Your task to perform on an android device: change text size in settings app Image 0: 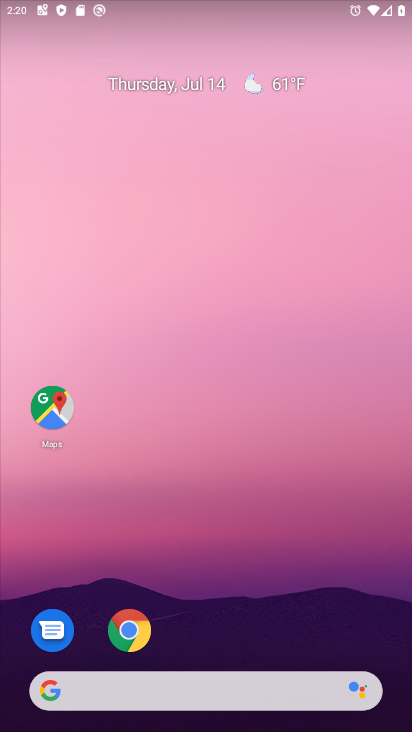
Step 0: drag from (240, 659) to (358, 243)
Your task to perform on an android device: change text size in settings app Image 1: 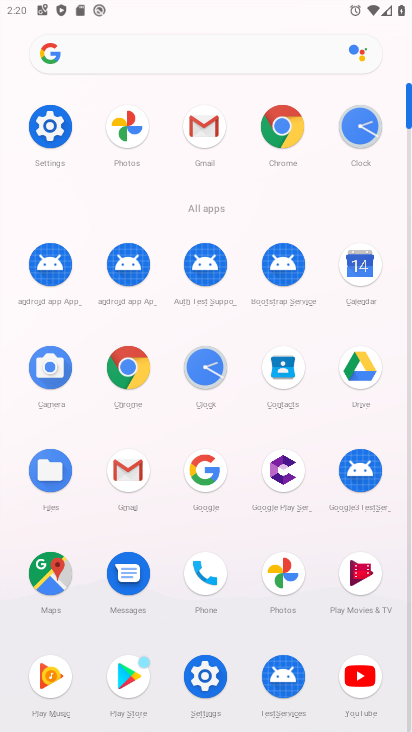
Step 1: click (43, 133)
Your task to perform on an android device: change text size in settings app Image 2: 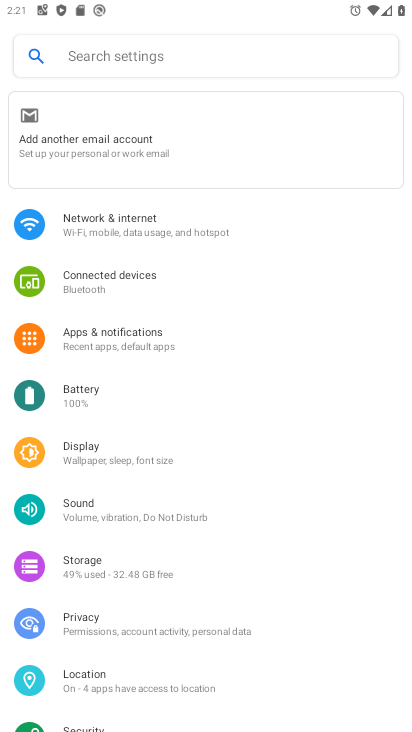
Step 2: click (108, 457)
Your task to perform on an android device: change text size in settings app Image 3: 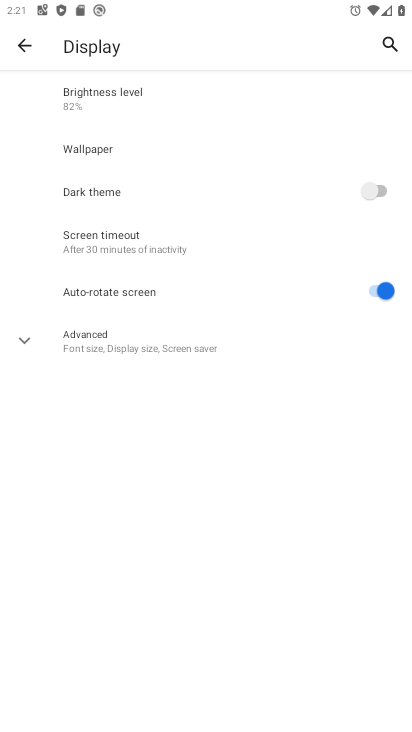
Step 3: click (118, 341)
Your task to perform on an android device: change text size in settings app Image 4: 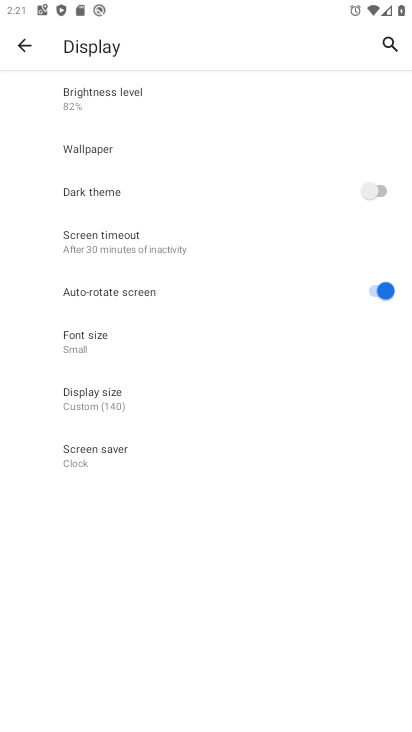
Step 4: click (76, 353)
Your task to perform on an android device: change text size in settings app Image 5: 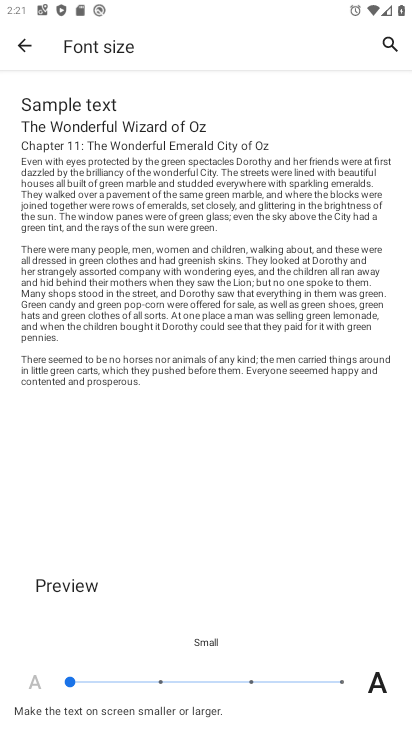
Step 5: click (163, 679)
Your task to perform on an android device: change text size in settings app Image 6: 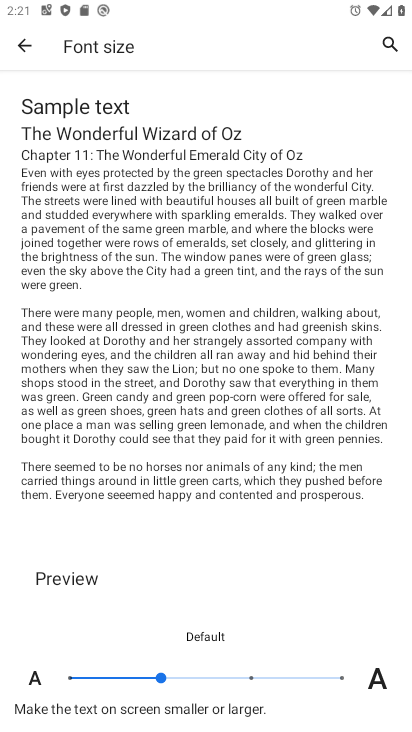
Step 6: task complete